Your task to perform on an android device: Open the phone app and click the voicemail tab. Image 0: 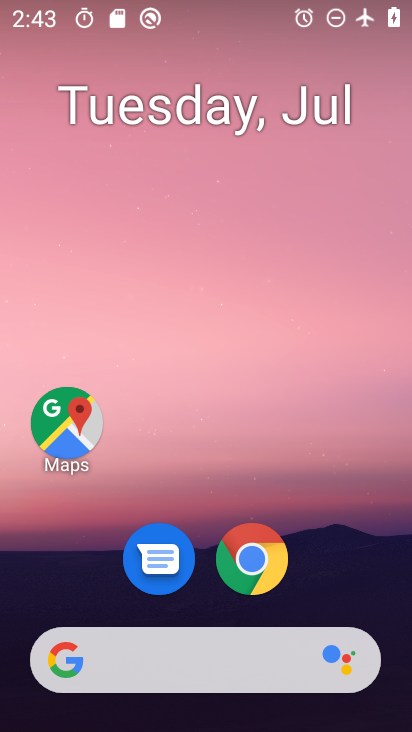
Step 0: drag from (366, 573) to (358, 229)
Your task to perform on an android device: Open the phone app and click the voicemail tab. Image 1: 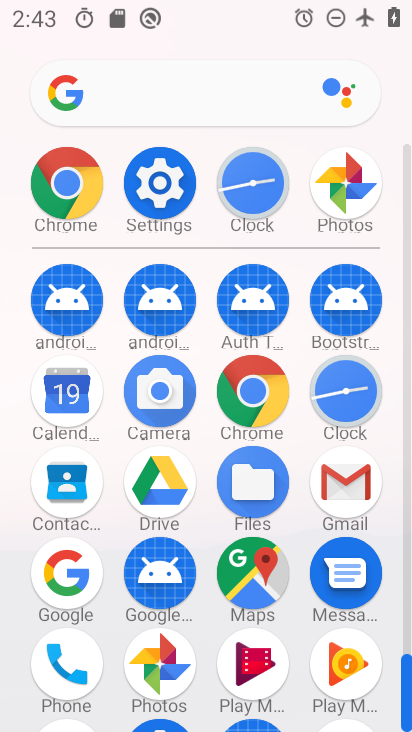
Step 1: click (52, 662)
Your task to perform on an android device: Open the phone app and click the voicemail tab. Image 2: 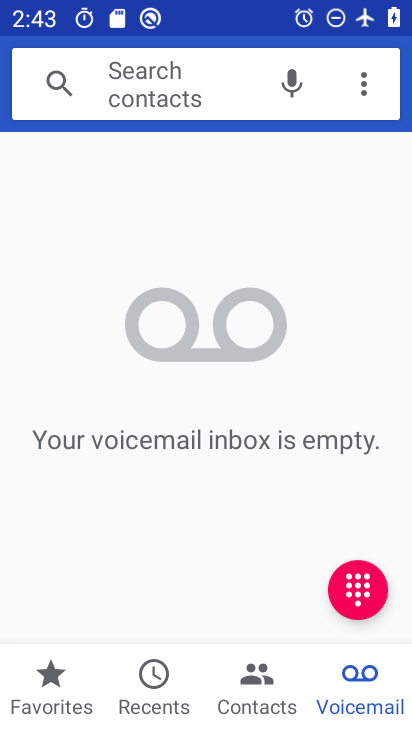
Step 2: task complete